Your task to perform on an android device: all mails in gmail Image 0: 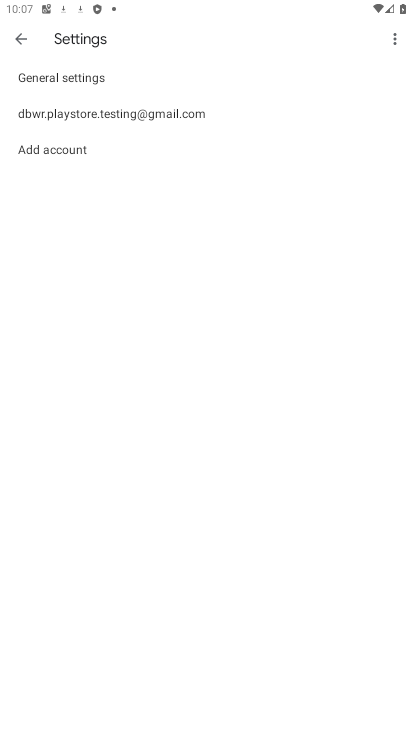
Step 0: press home button
Your task to perform on an android device: all mails in gmail Image 1: 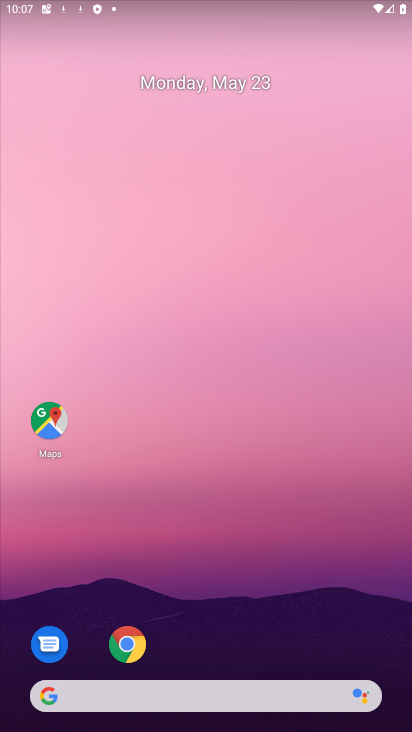
Step 1: drag from (264, 720) to (212, 119)
Your task to perform on an android device: all mails in gmail Image 2: 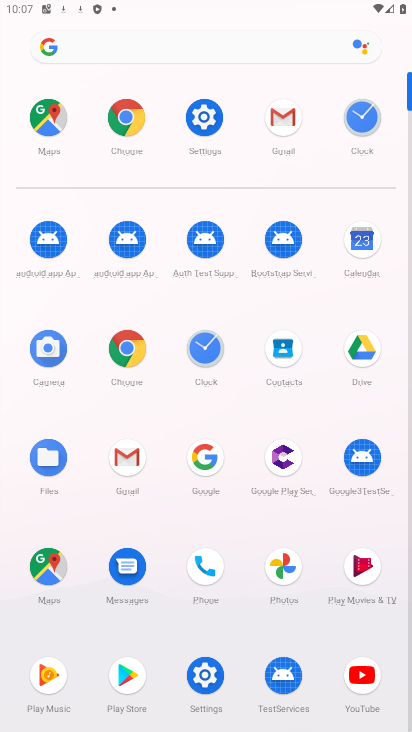
Step 2: click (295, 119)
Your task to perform on an android device: all mails in gmail Image 3: 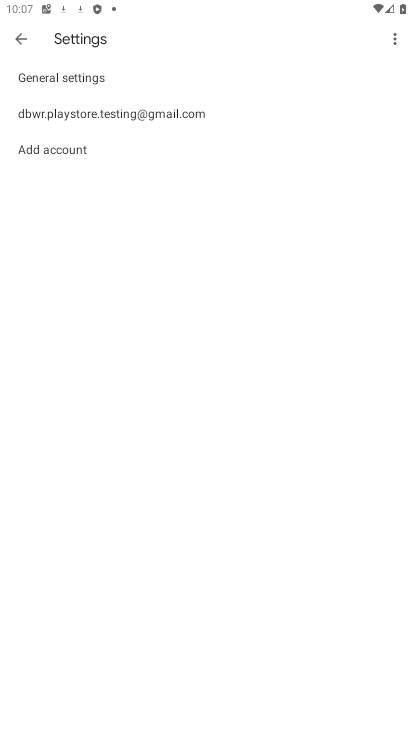
Step 3: click (22, 31)
Your task to perform on an android device: all mails in gmail Image 4: 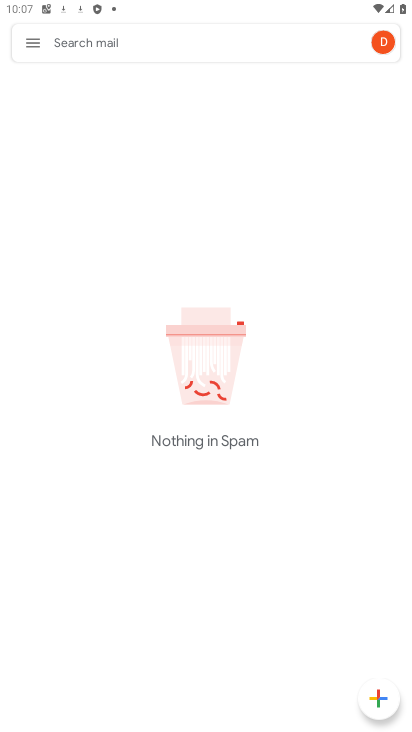
Step 4: click (29, 52)
Your task to perform on an android device: all mails in gmail Image 5: 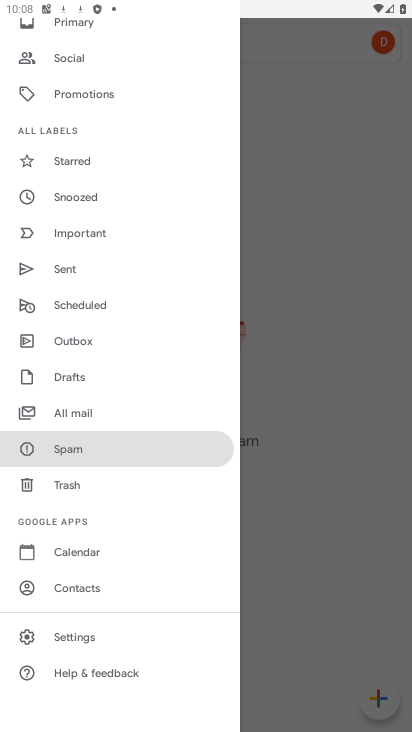
Step 5: click (94, 407)
Your task to perform on an android device: all mails in gmail Image 6: 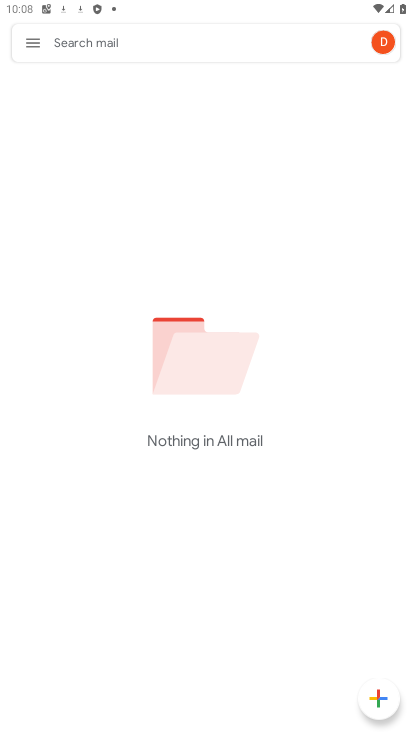
Step 6: task complete